Your task to perform on an android device: turn off airplane mode Image 0: 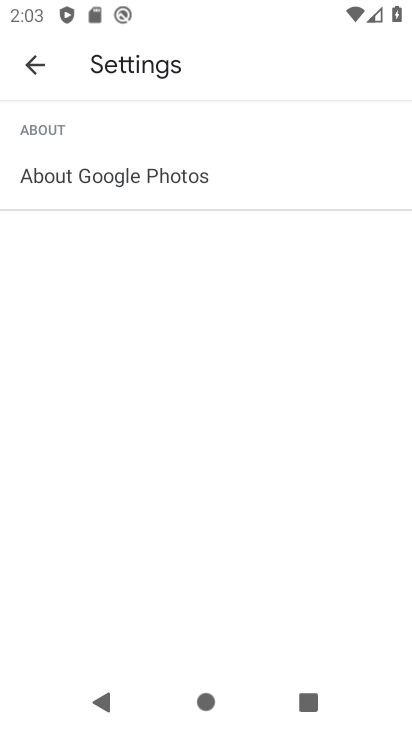
Step 0: press home button
Your task to perform on an android device: turn off airplane mode Image 1: 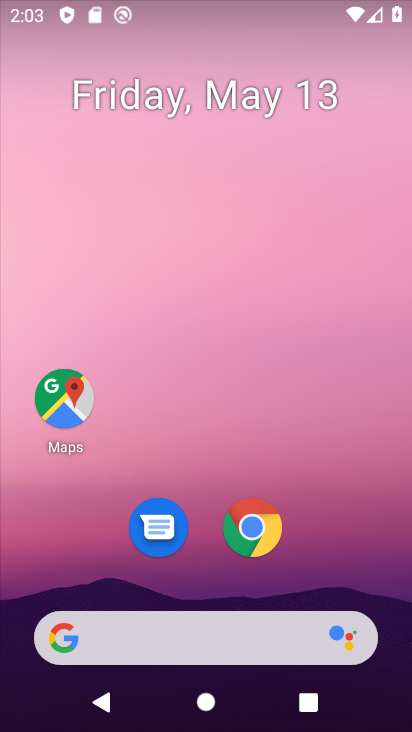
Step 1: drag from (346, 533) to (315, 142)
Your task to perform on an android device: turn off airplane mode Image 2: 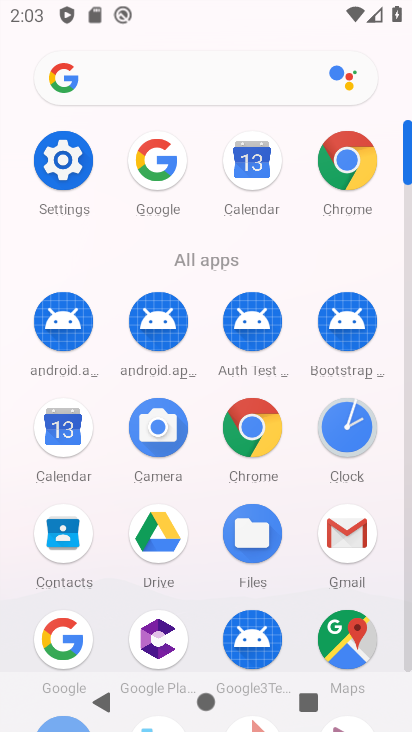
Step 2: click (64, 164)
Your task to perform on an android device: turn off airplane mode Image 3: 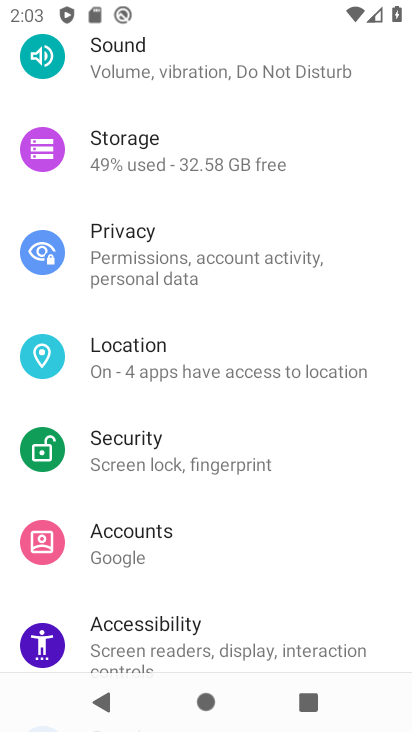
Step 3: drag from (247, 147) to (320, 567)
Your task to perform on an android device: turn off airplane mode Image 4: 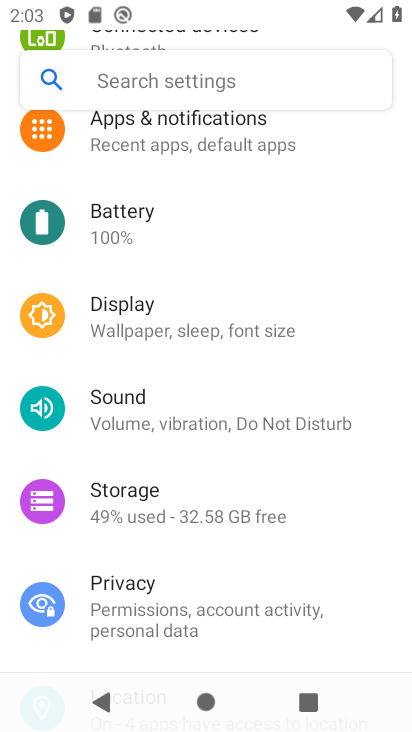
Step 4: drag from (286, 233) to (345, 626)
Your task to perform on an android device: turn off airplane mode Image 5: 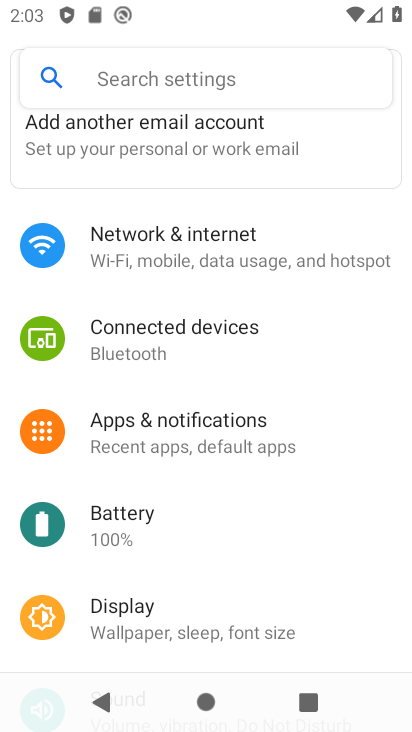
Step 5: drag from (290, 208) to (332, 542)
Your task to perform on an android device: turn off airplane mode Image 6: 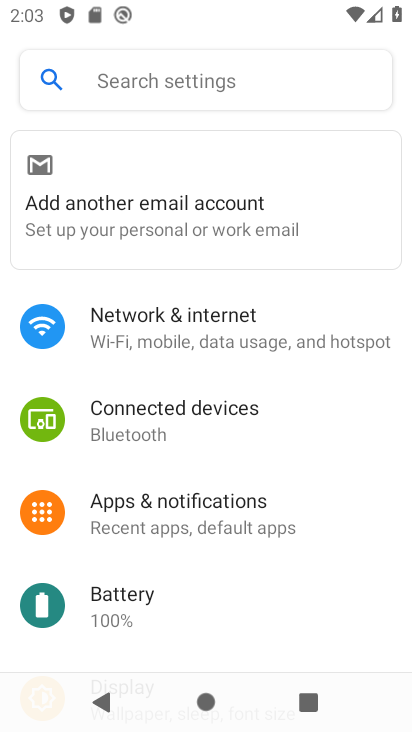
Step 6: click (287, 330)
Your task to perform on an android device: turn off airplane mode Image 7: 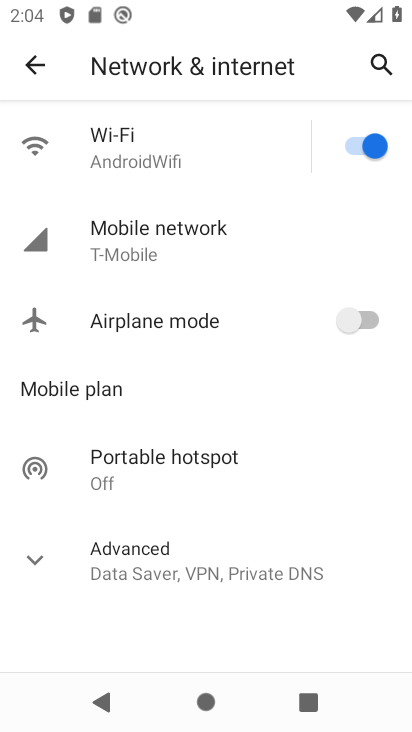
Step 7: task complete